Your task to perform on an android device: toggle translation in the chrome app Image 0: 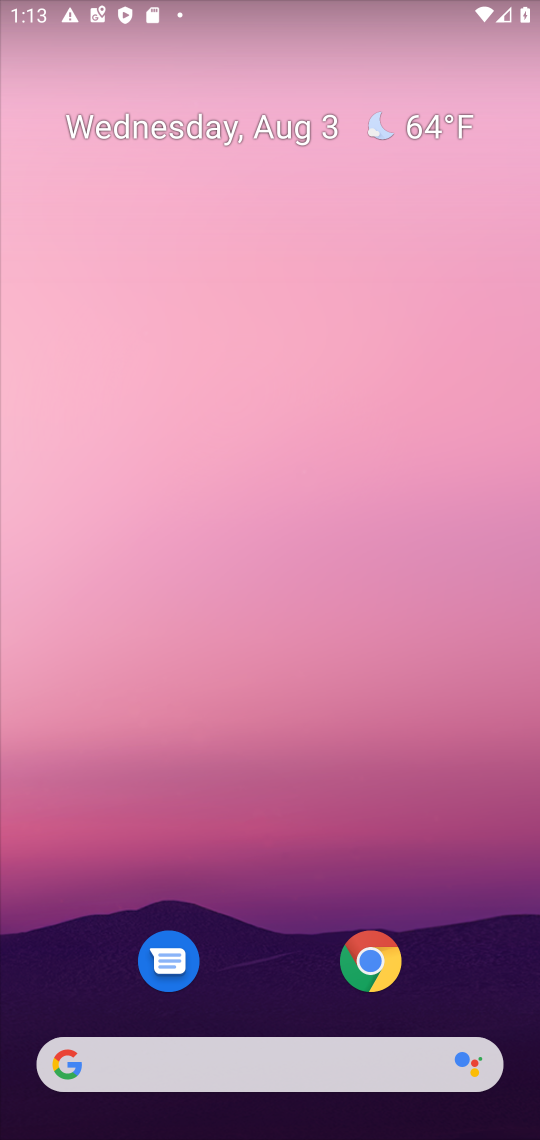
Step 0: click (375, 962)
Your task to perform on an android device: toggle translation in the chrome app Image 1: 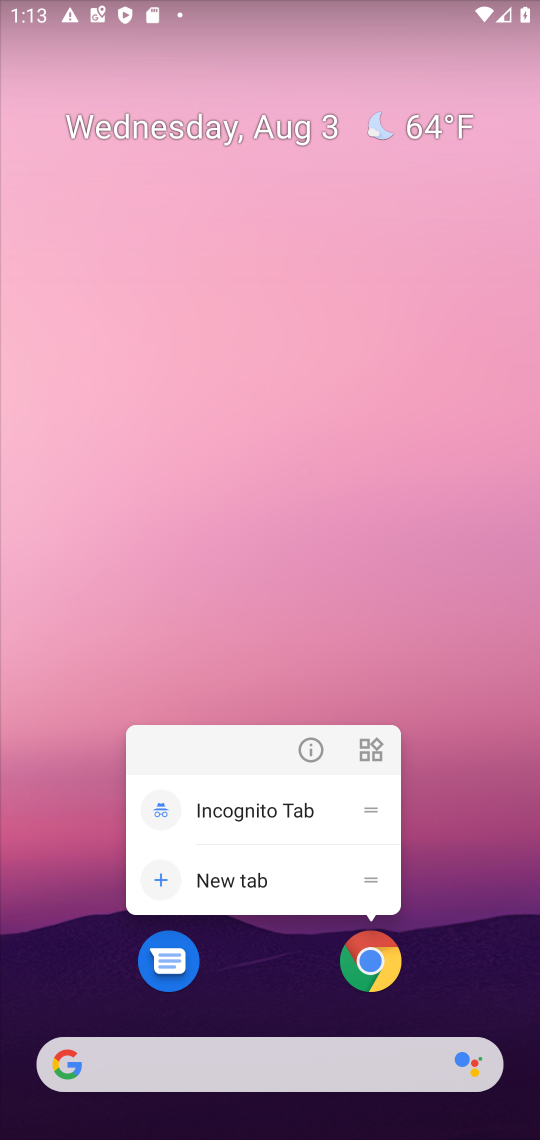
Step 1: click (375, 962)
Your task to perform on an android device: toggle translation in the chrome app Image 2: 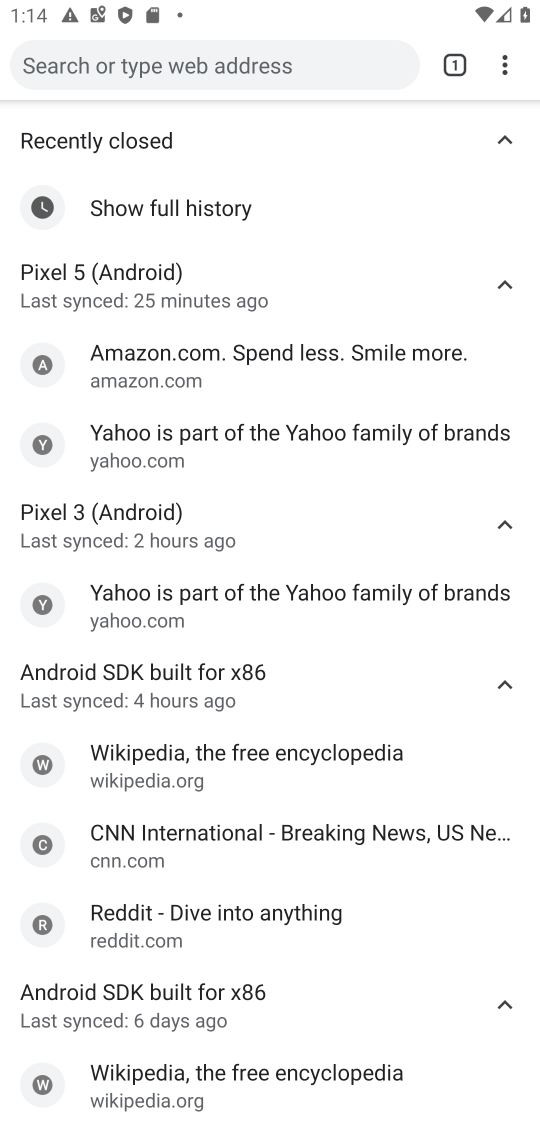
Step 2: drag from (512, 66) to (293, 544)
Your task to perform on an android device: toggle translation in the chrome app Image 3: 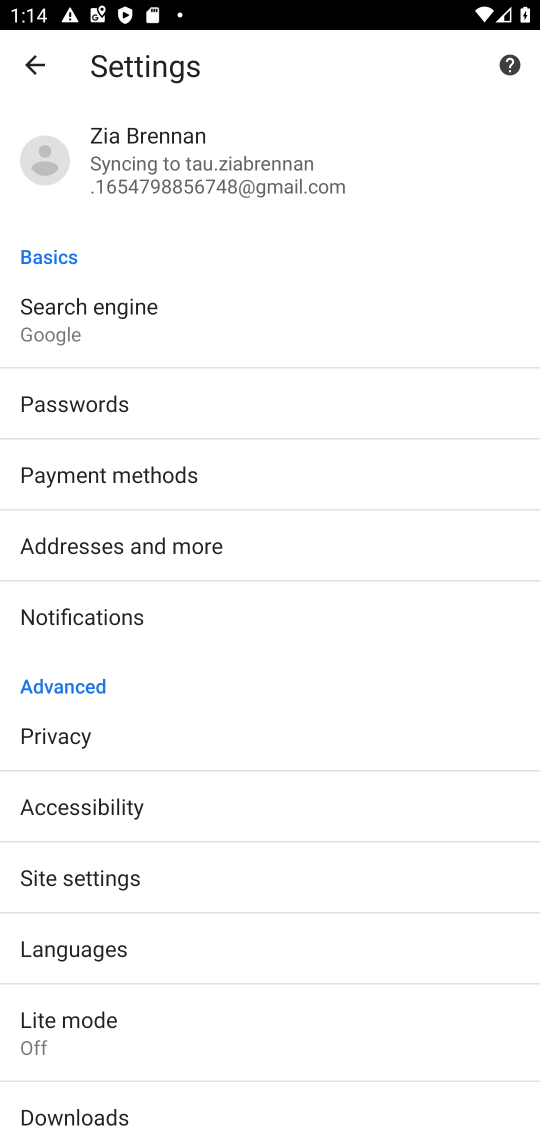
Step 3: click (106, 972)
Your task to perform on an android device: toggle translation in the chrome app Image 4: 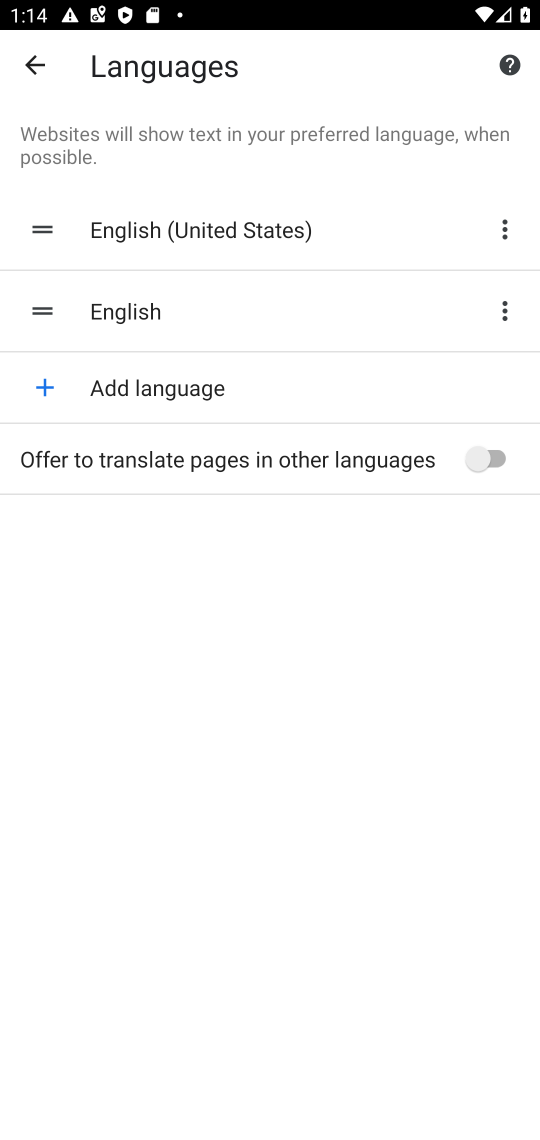
Step 4: click (478, 458)
Your task to perform on an android device: toggle translation in the chrome app Image 5: 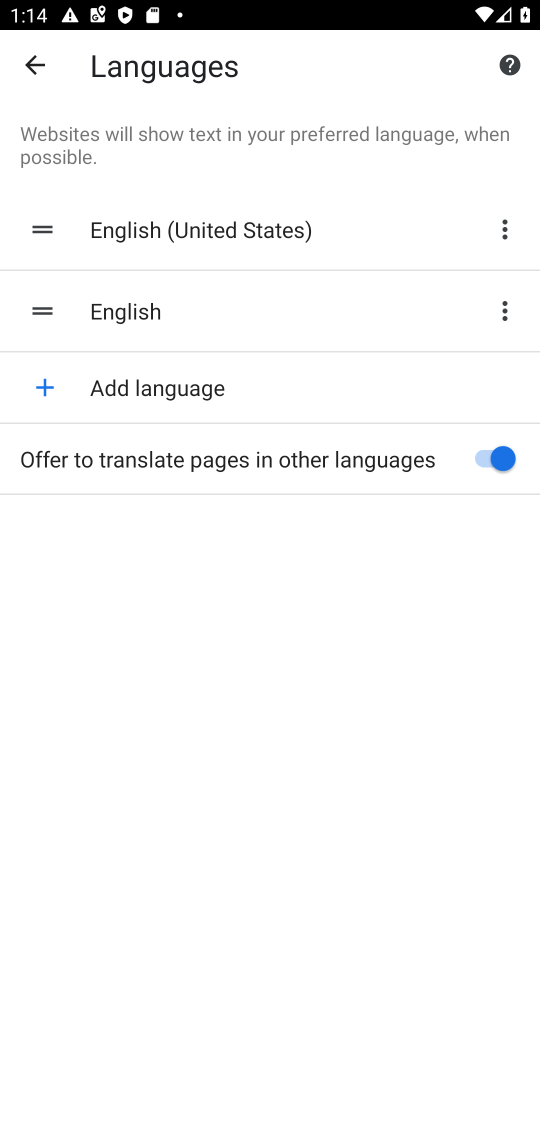
Step 5: task complete